Your task to perform on an android device: check the backup settings in the google photos Image 0: 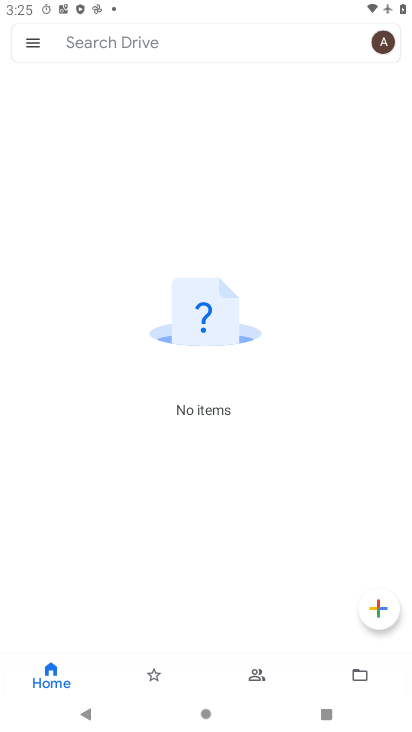
Step 0: press home button
Your task to perform on an android device: check the backup settings in the google photos Image 1: 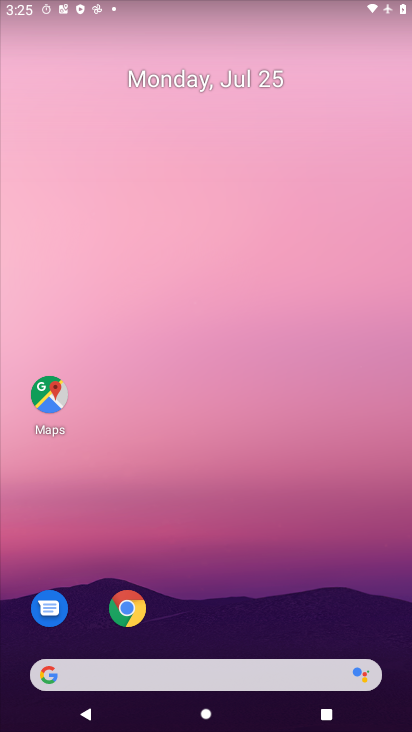
Step 1: drag from (212, 696) to (236, 356)
Your task to perform on an android device: check the backup settings in the google photos Image 2: 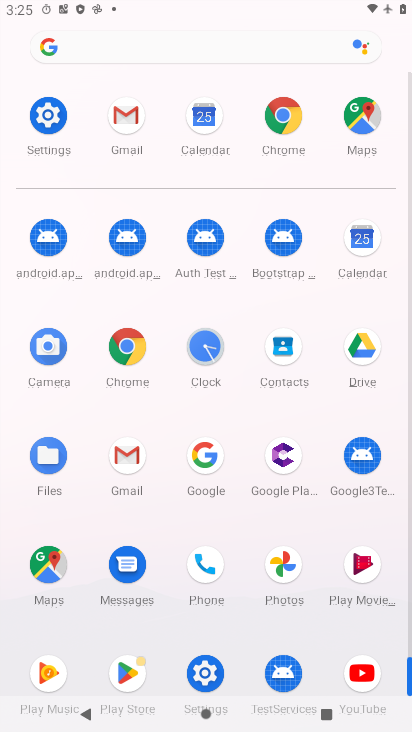
Step 2: click (293, 566)
Your task to perform on an android device: check the backup settings in the google photos Image 3: 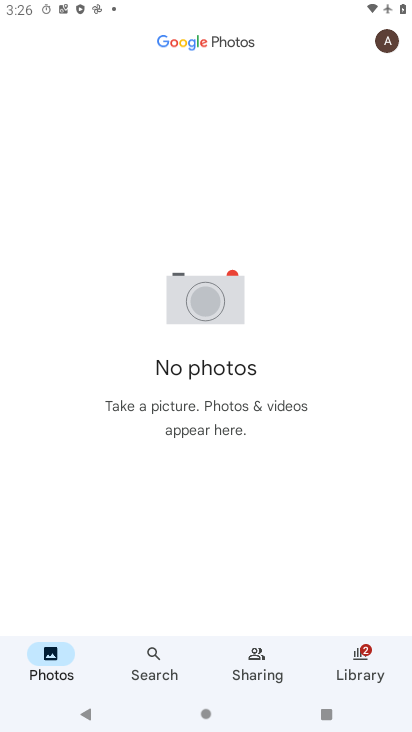
Step 3: click (392, 39)
Your task to perform on an android device: check the backup settings in the google photos Image 4: 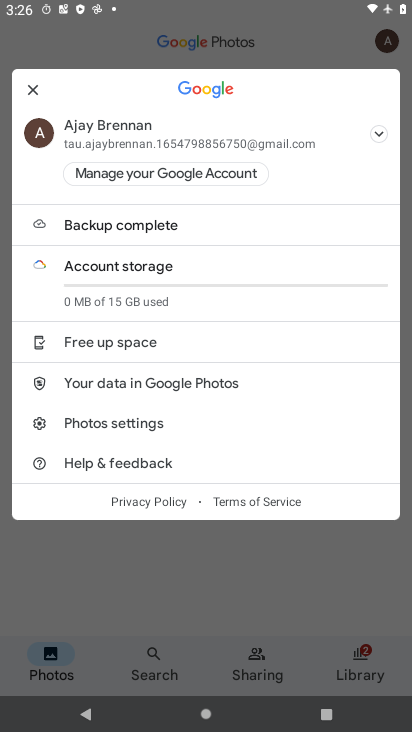
Step 4: click (147, 423)
Your task to perform on an android device: check the backup settings in the google photos Image 5: 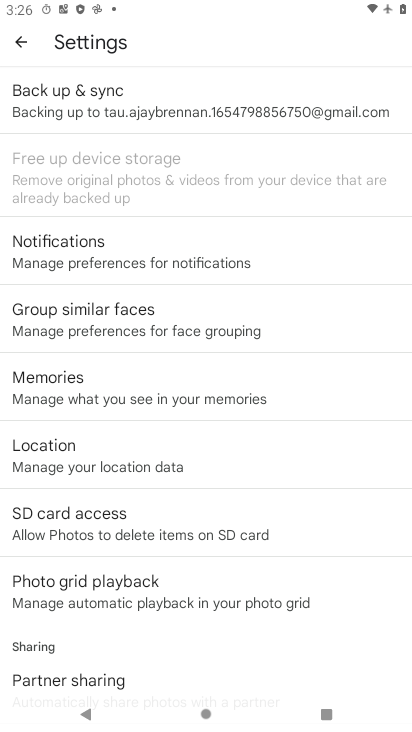
Step 5: click (182, 112)
Your task to perform on an android device: check the backup settings in the google photos Image 6: 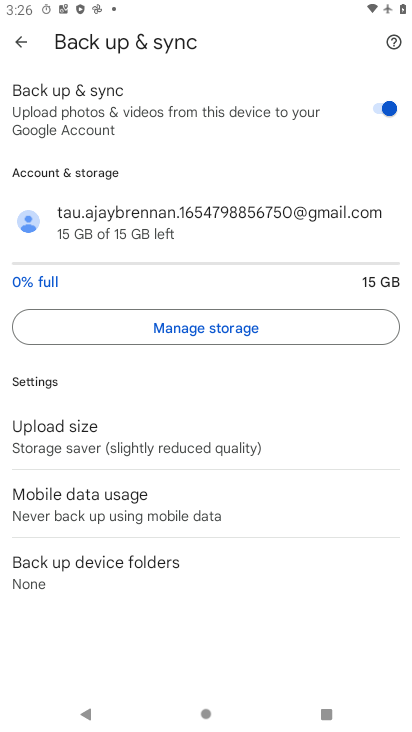
Step 6: task complete